Your task to perform on an android device: open the mobile data screen to see how much data has been used Image 0: 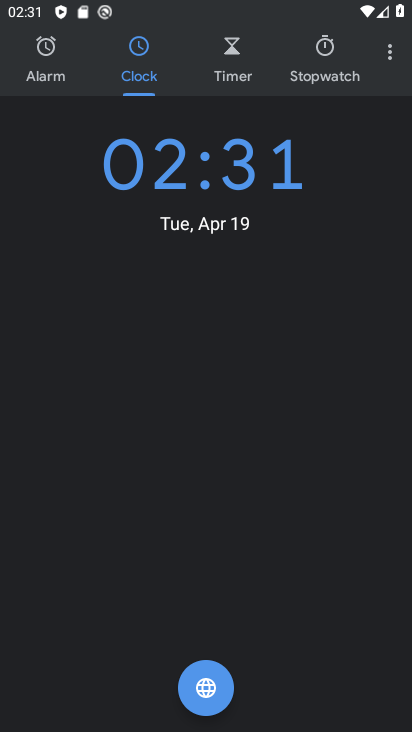
Step 0: press home button
Your task to perform on an android device: open the mobile data screen to see how much data has been used Image 1: 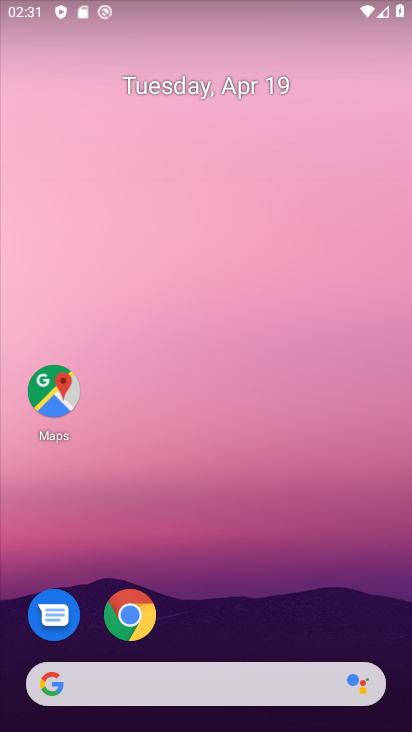
Step 1: drag from (273, 617) to (262, 146)
Your task to perform on an android device: open the mobile data screen to see how much data has been used Image 2: 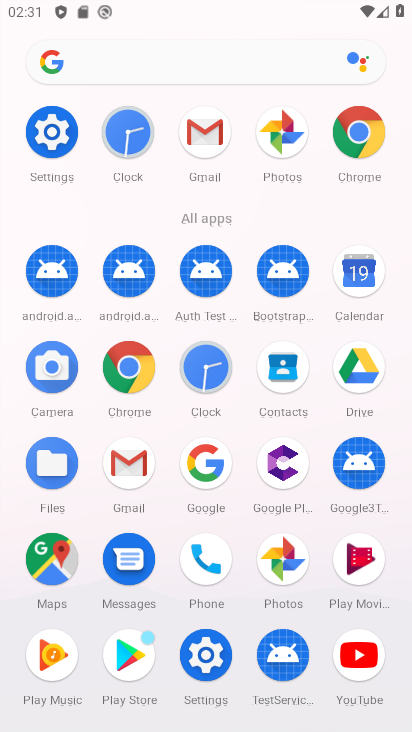
Step 2: click (205, 647)
Your task to perform on an android device: open the mobile data screen to see how much data has been used Image 3: 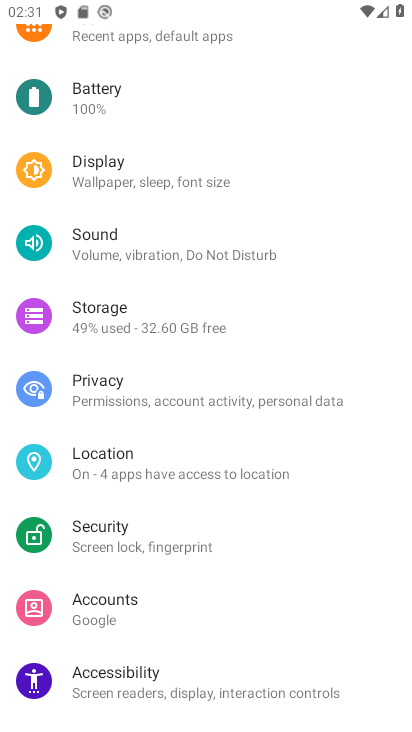
Step 3: drag from (135, 170) to (147, 614)
Your task to perform on an android device: open the mobile data screen to see how much data has been used Image 4: 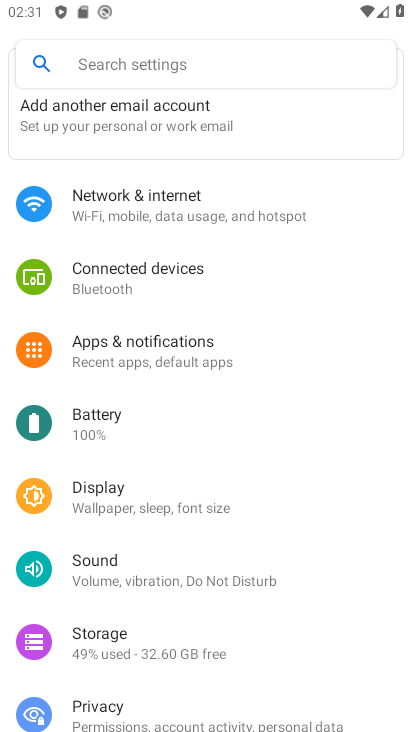
Step 4: click (179, 214)
Your task to perform on an android device: open the mobile data screen to see how much data has been used Image 5: 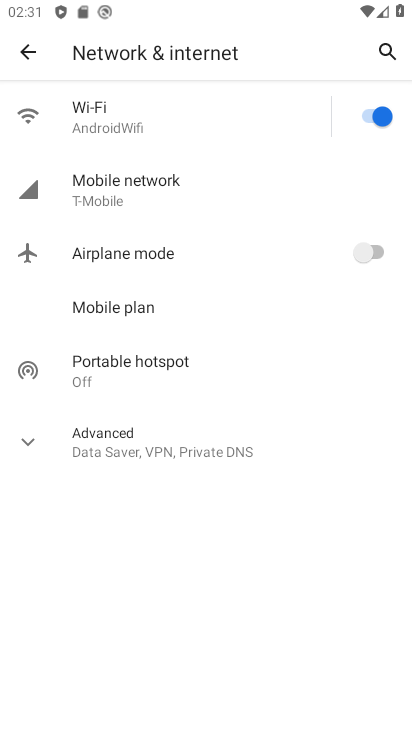
Step 5: click (185, 183)
Your task to perform on an android device: open the mobile data screen to see how much data has been used Image 6: 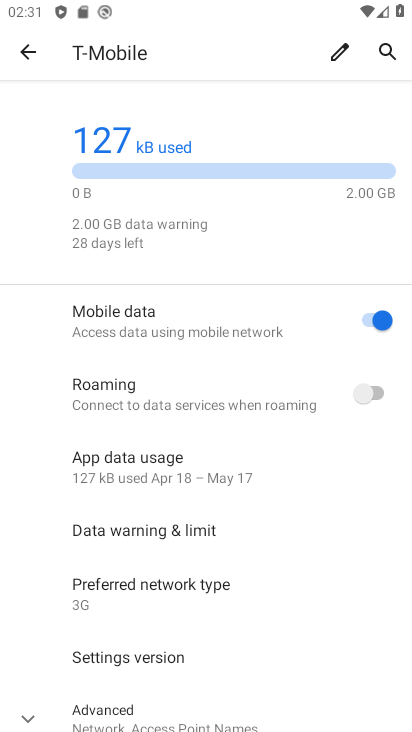
Step 6: click (174, 465)
Your task to perform on an android device: open the mobile data screen to see how much data has been used Image 7: 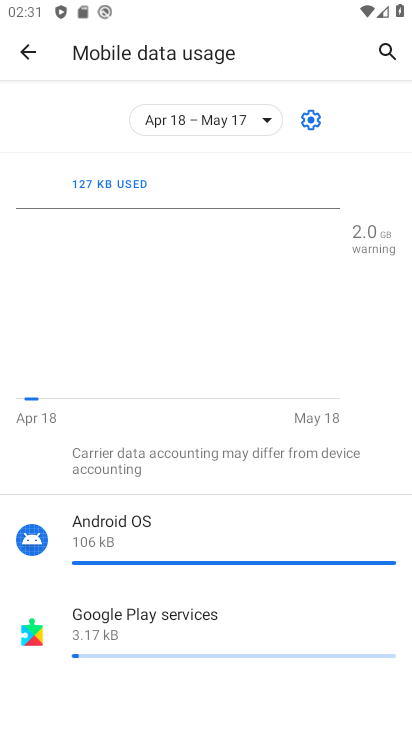
Step 7: drag from (227, 597) to (300, 226)
Your task to perform on an android device: open the mobile data screen to see how much data has been used Image 8: 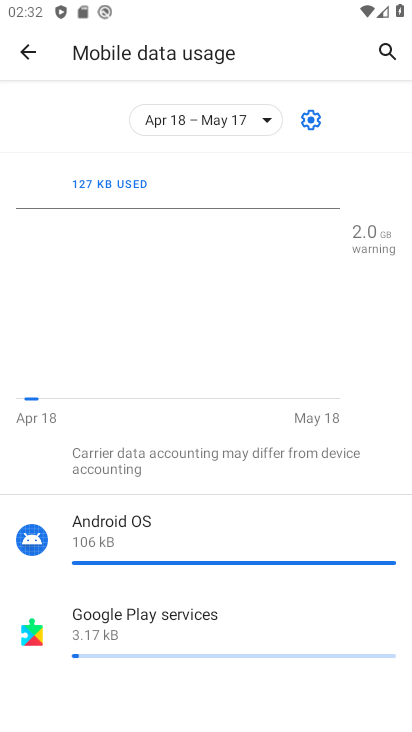
Step 8: click (31, 50)
Your task to perform on an android device: open the mobile data screen to see how much data has been used Image 9: 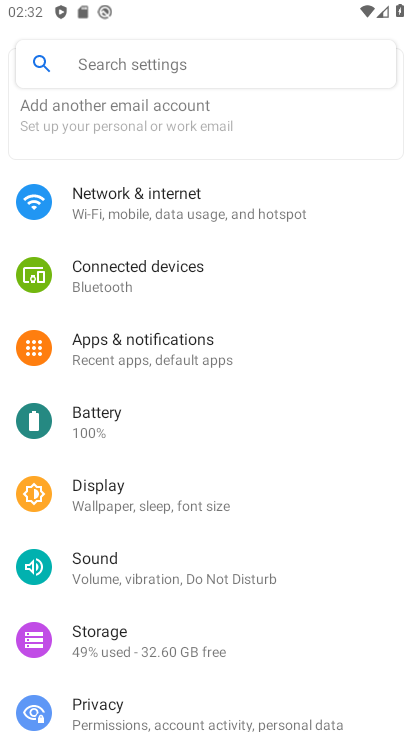
Step 9: task complete